Your task to perform on an android device: toggle notifications settings in the gmail app Image 0: 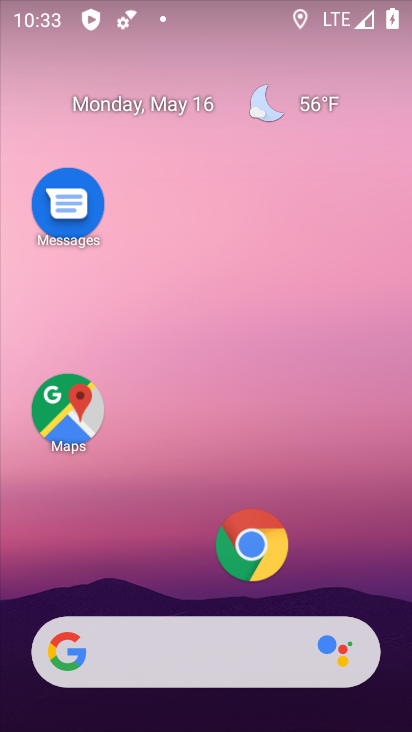
Step 0: drag from (190, 596) to (367, 5)
Your task to perform on an android device: toggle notifications settings in the gmail app Image 1: 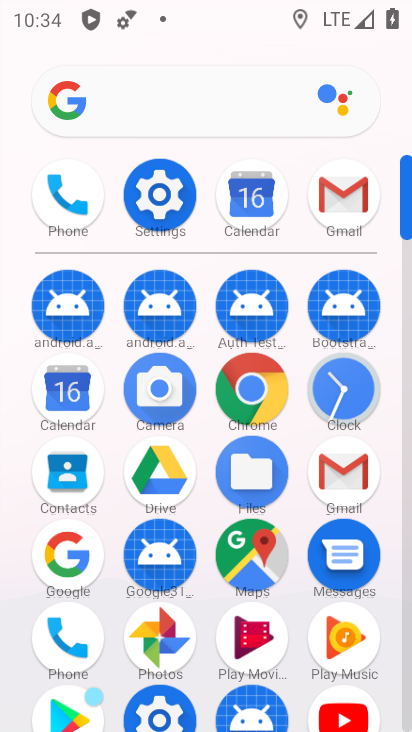
Step 1: click (356, 484)
Your task to perform on an android device: toggle notifications settings in the gmail app Image 2: 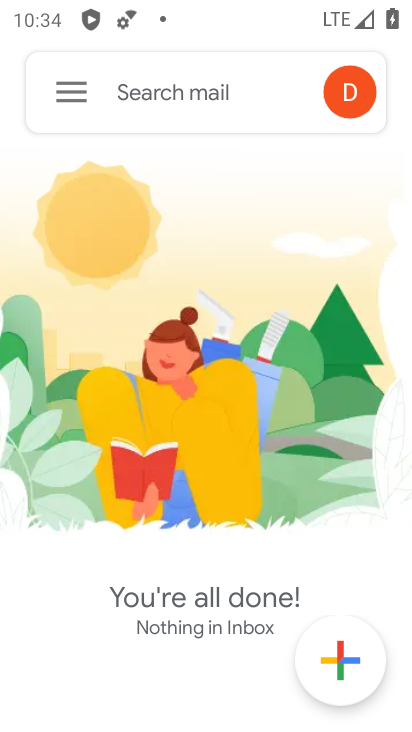
Step 2: click (66, 95)
Your task to perform on an android device: toggle notifications settings in the gmail app Image 3: 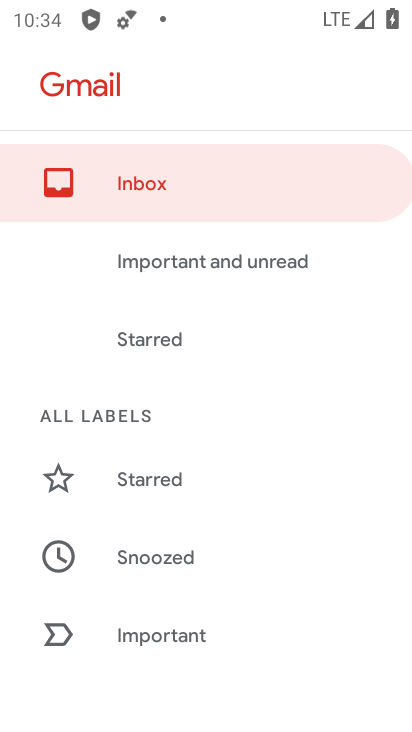
Step 3: drag from (174, 513) to (138, 127)
Your task to perform on an android device: toggle notifications settings in the gmail app Image 4: 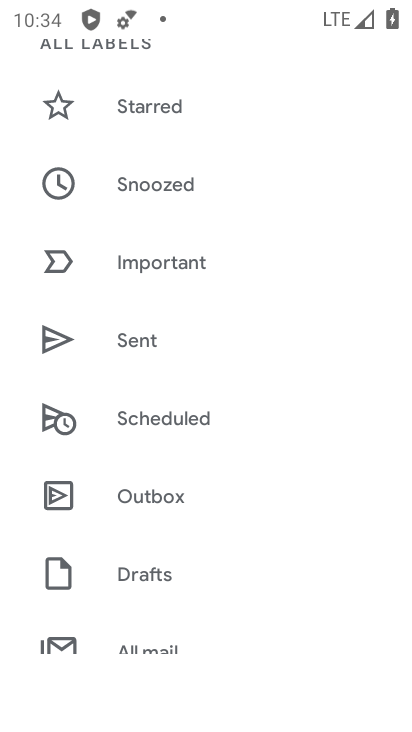
Step 4: drag from (261, 575) to (192, 46)
Your task to perform on an android device: toggle notifications settings in the gmail app Image 5: 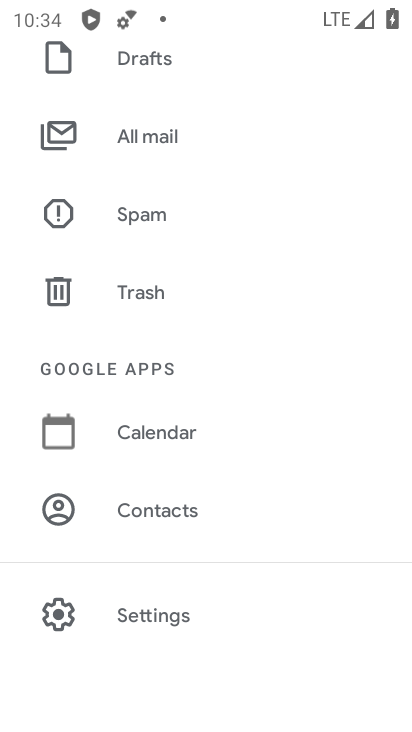
Step 5: click (165, 605)
Your task to perform on an android device: toggle notifications settings in the gmail app Image 6: 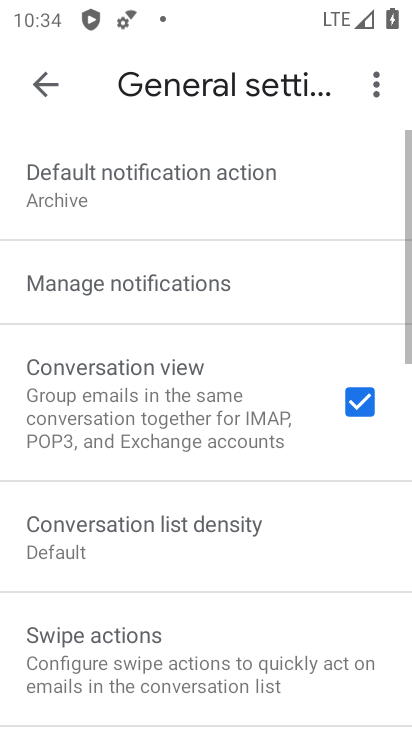
Step 6: drag from (160, 605) to (126, 373)
Your task to perform on an android device: toggle notifications settings in the gmail app Image 7: 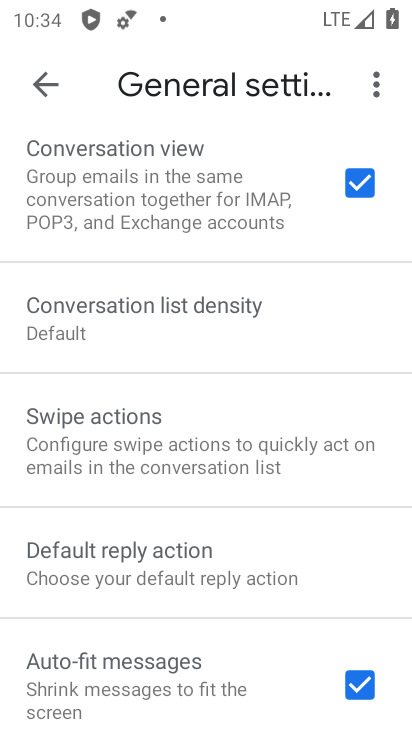
Step 7: drag from (155, 260) to (191, 726)
Your task to perform on an android device: toggle notifications settings in the gmail app Image 8: 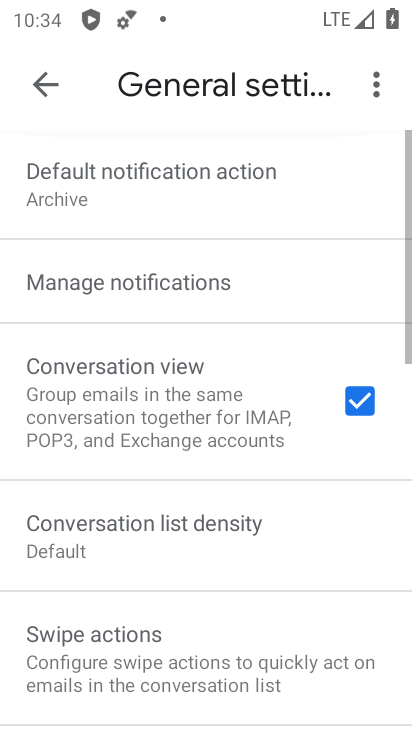
Step 8: click (136, 289)
Your task to perform on an android device: toggle notifications settings in the gmail app Image 9: 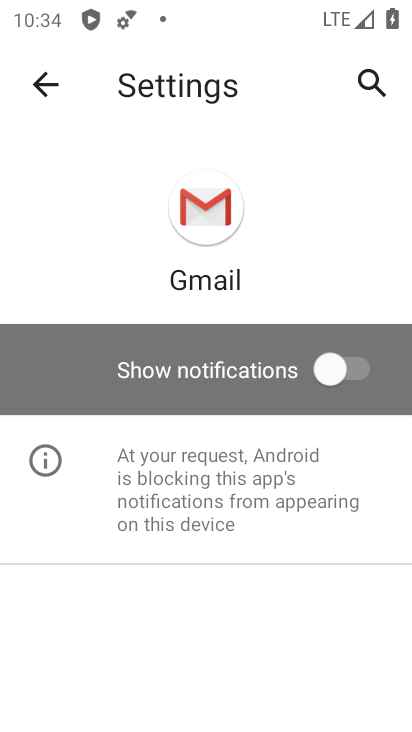
Step 9: click (335, 377)
Your task to perform on an android device: toggle notifications settings in the gmail app Image 10: 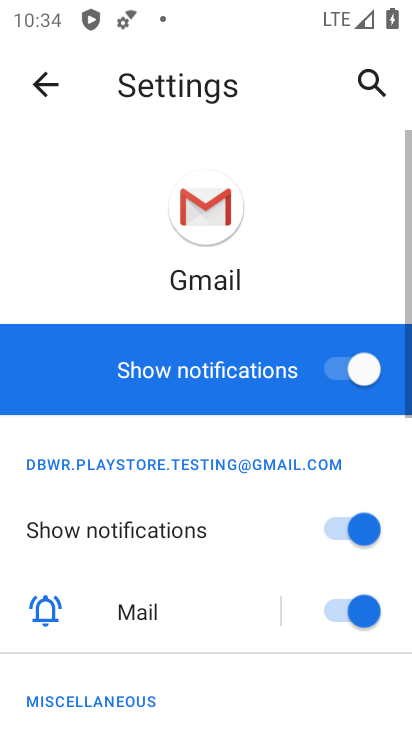
Step 10: task complete